Your task to perform on an android device: Clear the shopping cart on target.com. Search for macbook pro 15 inch on target.com, select the first entry, add it to the cart, then select checkout. Image 0: 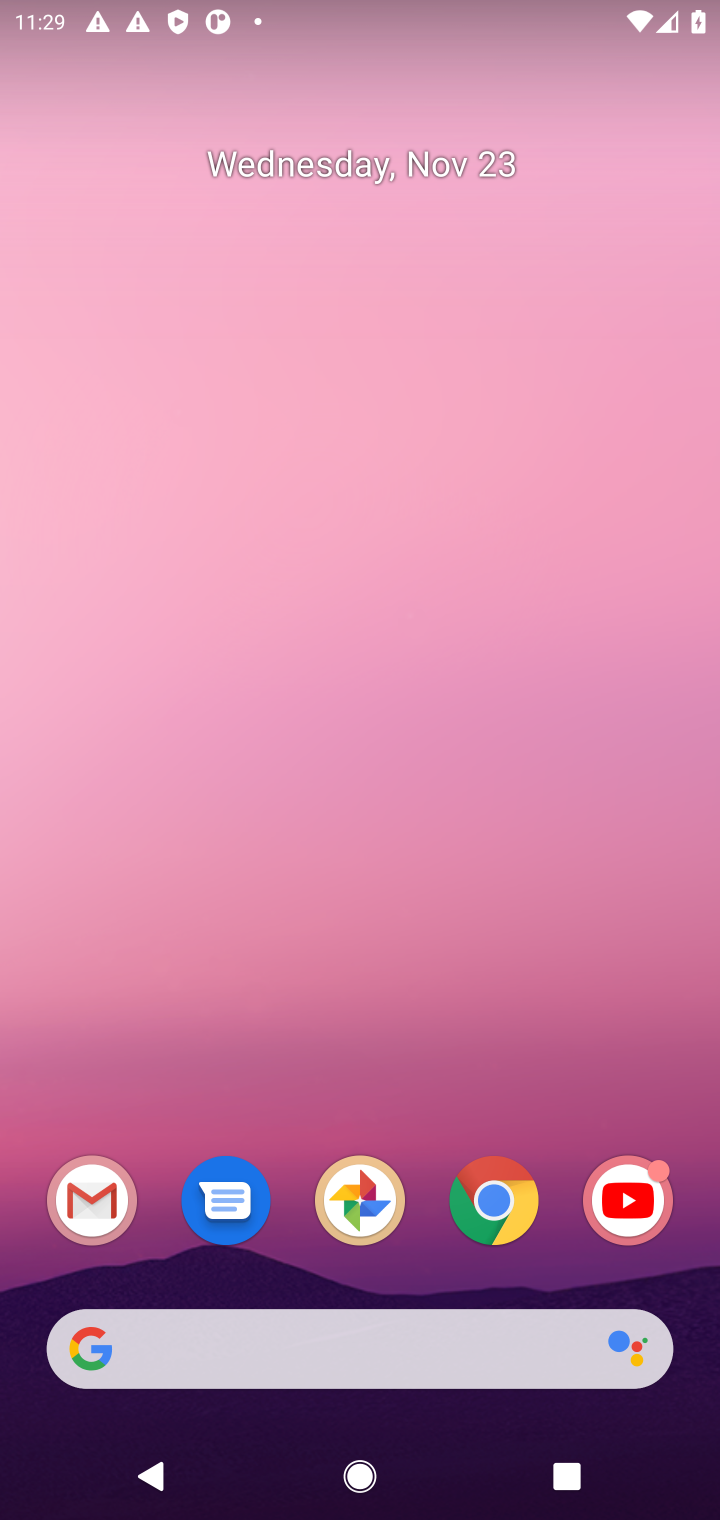
Step 0: click (486, 1337)
Your task to perform on an android device: Clear the shopping cart on target.com. Search for macbook pro 15 inch on target.com, select the first entry, add it to the cart, then select checkout. Image 1: 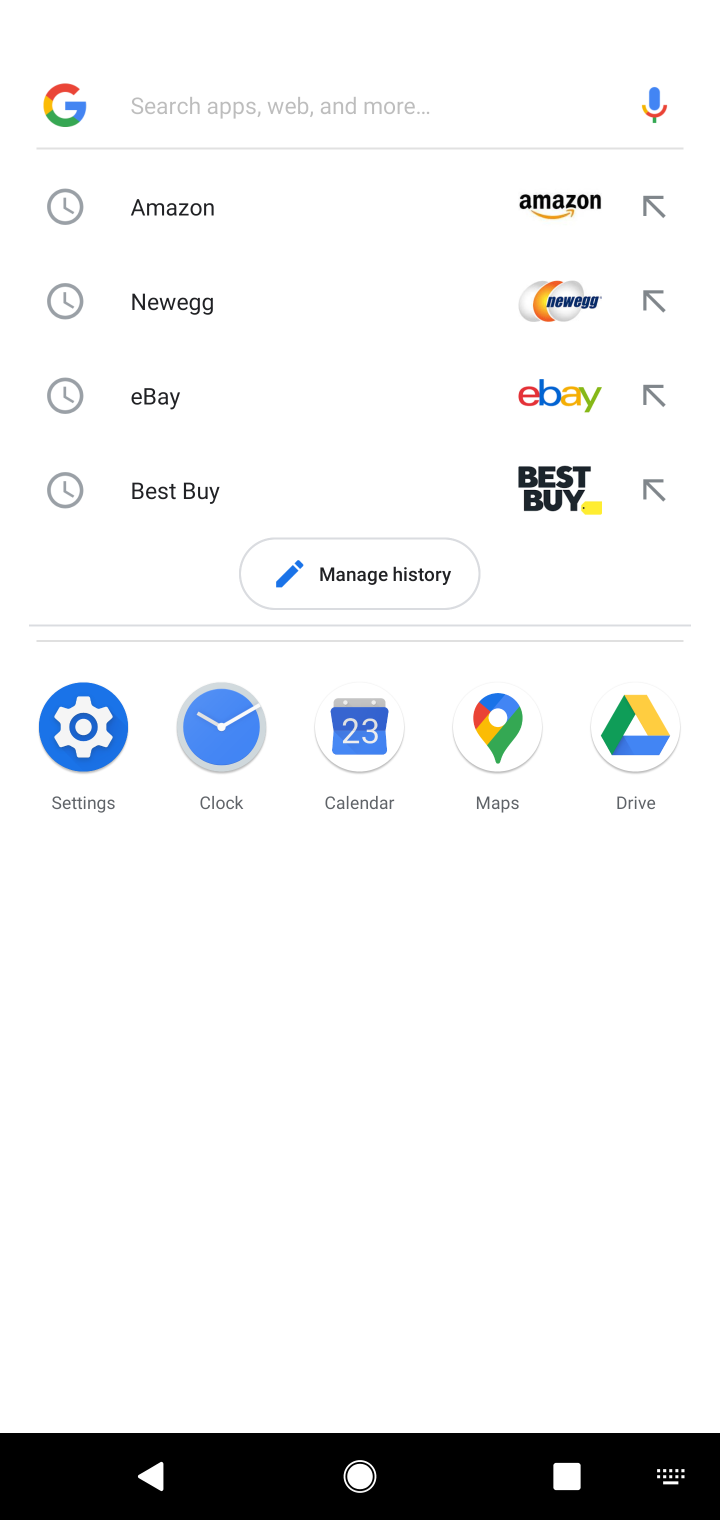
Step 1: type "target.com"
Your task to perform on an android device: Clear the shopping cart on target.com. Search for macbook pro 15 inch on target.com, select the first entry, add it to the cart, then select checkout. Image 2: 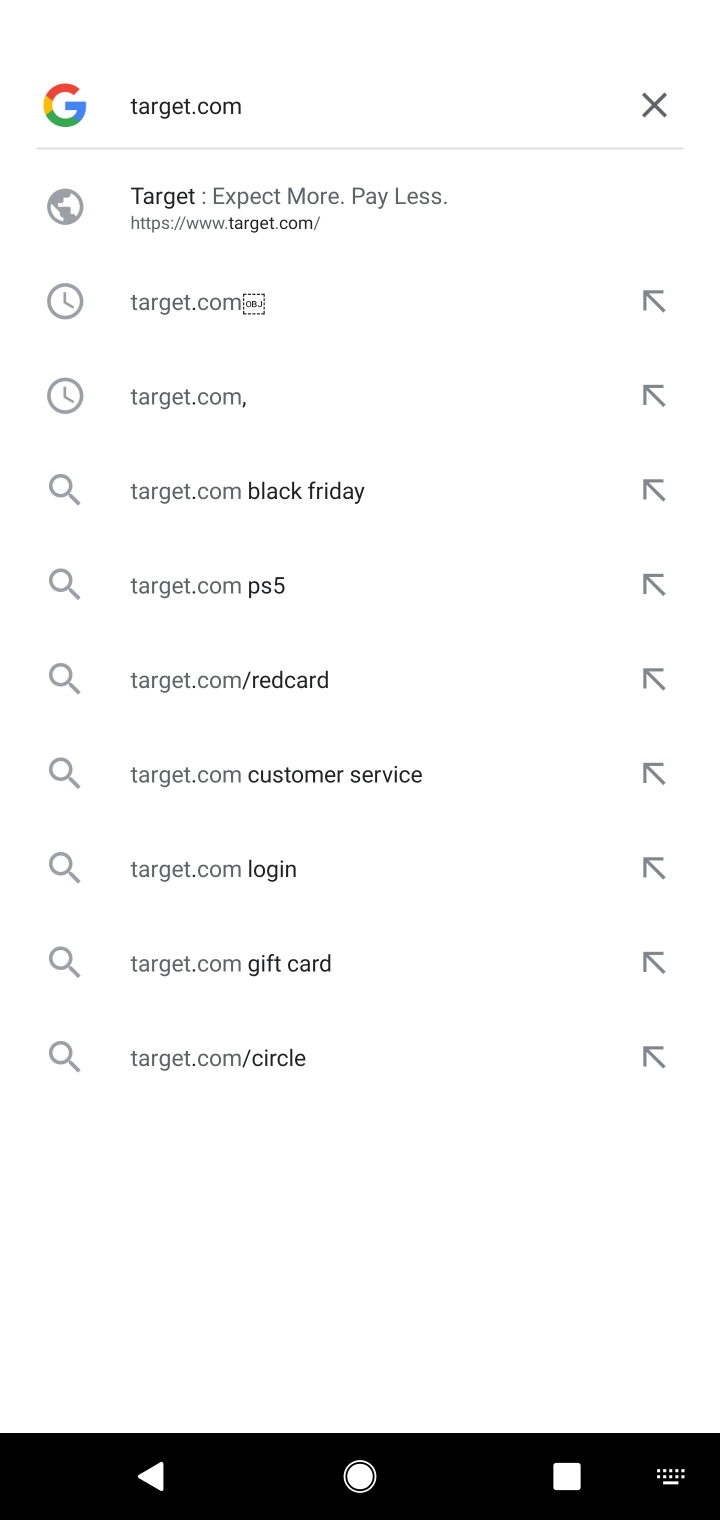
Step 2: click (535, 217)
Your task to perform on an android device: Clear the shopping cart on target.com. Search for macbook pro 15 inch on target.com, select the first entry, add it to the cart, then select checkout. Image 3: 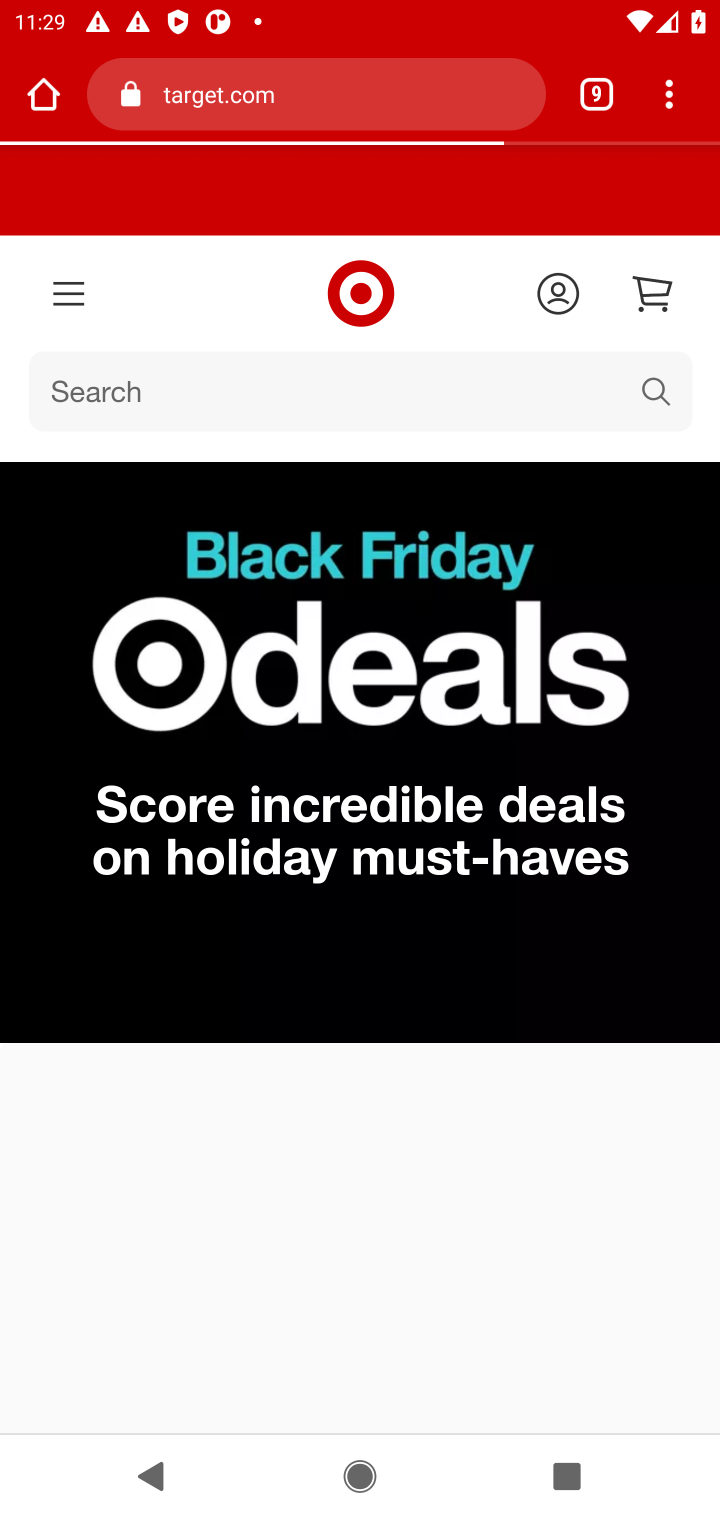
Step 3: click (433, 376)
Your task to perform on an android device: Clear the shopping cart on target.com. Search for macbook pro 15 inch on target.com, select the first entry, add it to the cart, then select checkout. Image 4: 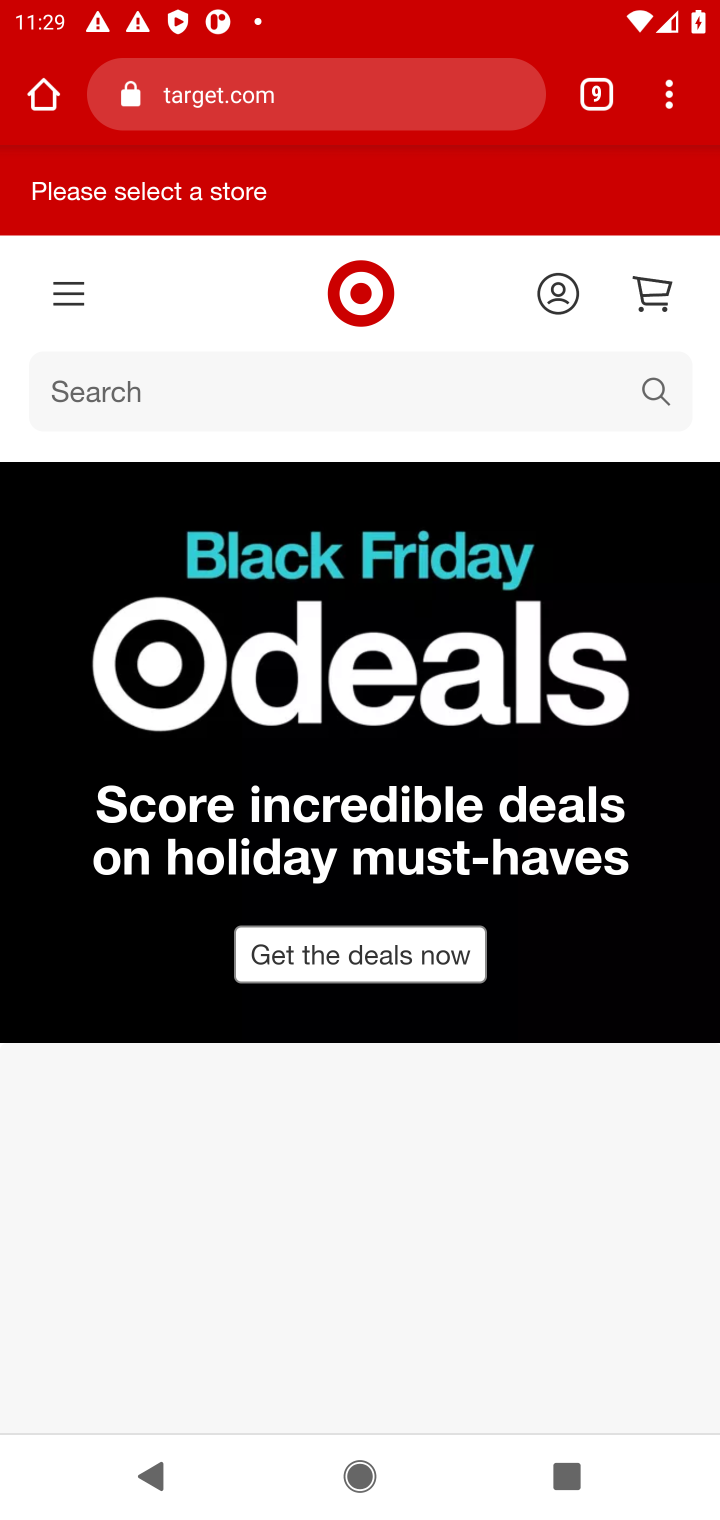
Step 4: type "macbook pro 15\"
Your task to perform on an android device: Clear the shopping cart on target.com. Search for macbook pro 15 inch on target.com, select the first entry, add it to the cart, then select checkout. Image 5: 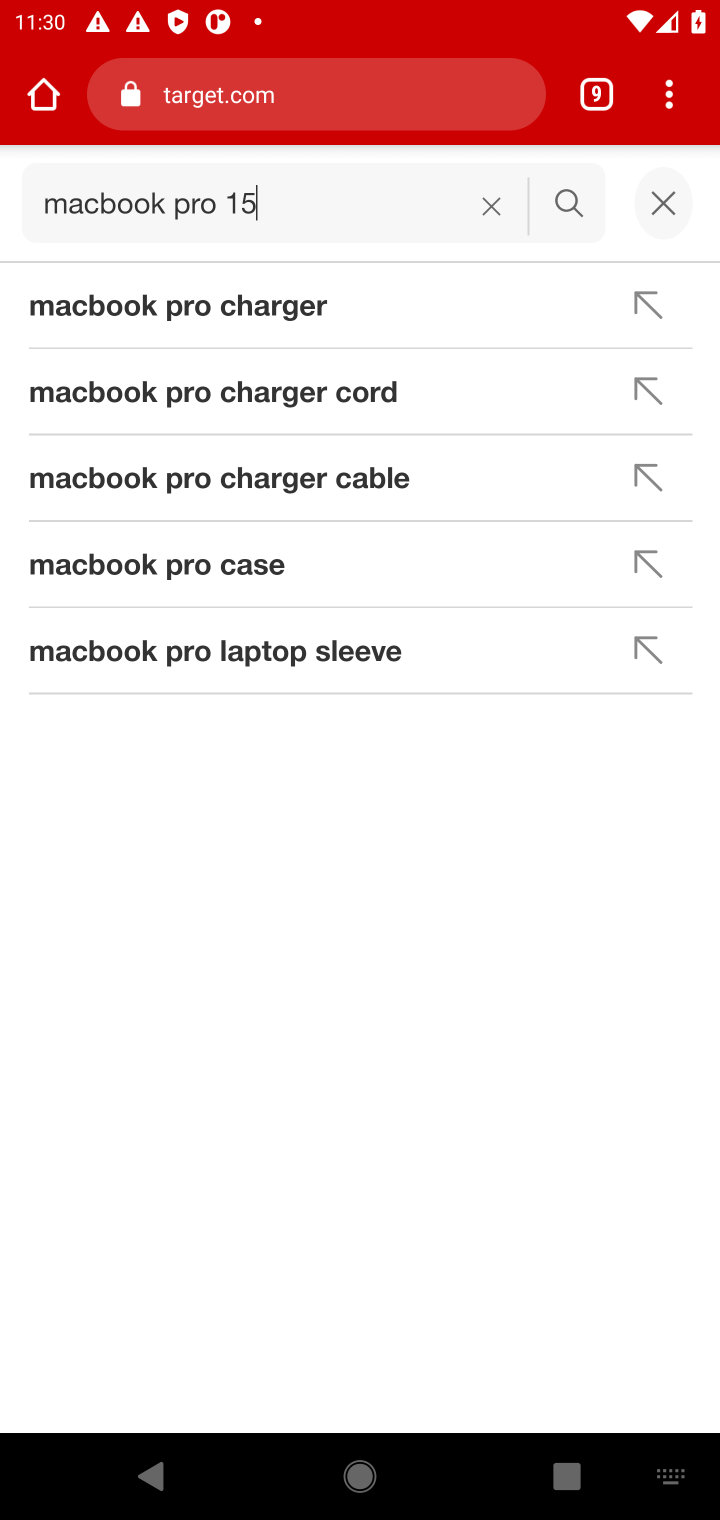
Step 5: click (279, 572)
Your task to perform on an android device: Clear the shopping cart on target.com. Search for macbook pro 15 inch on target.com, select the first entry, add it to the cart, then select checkout. Image 6: 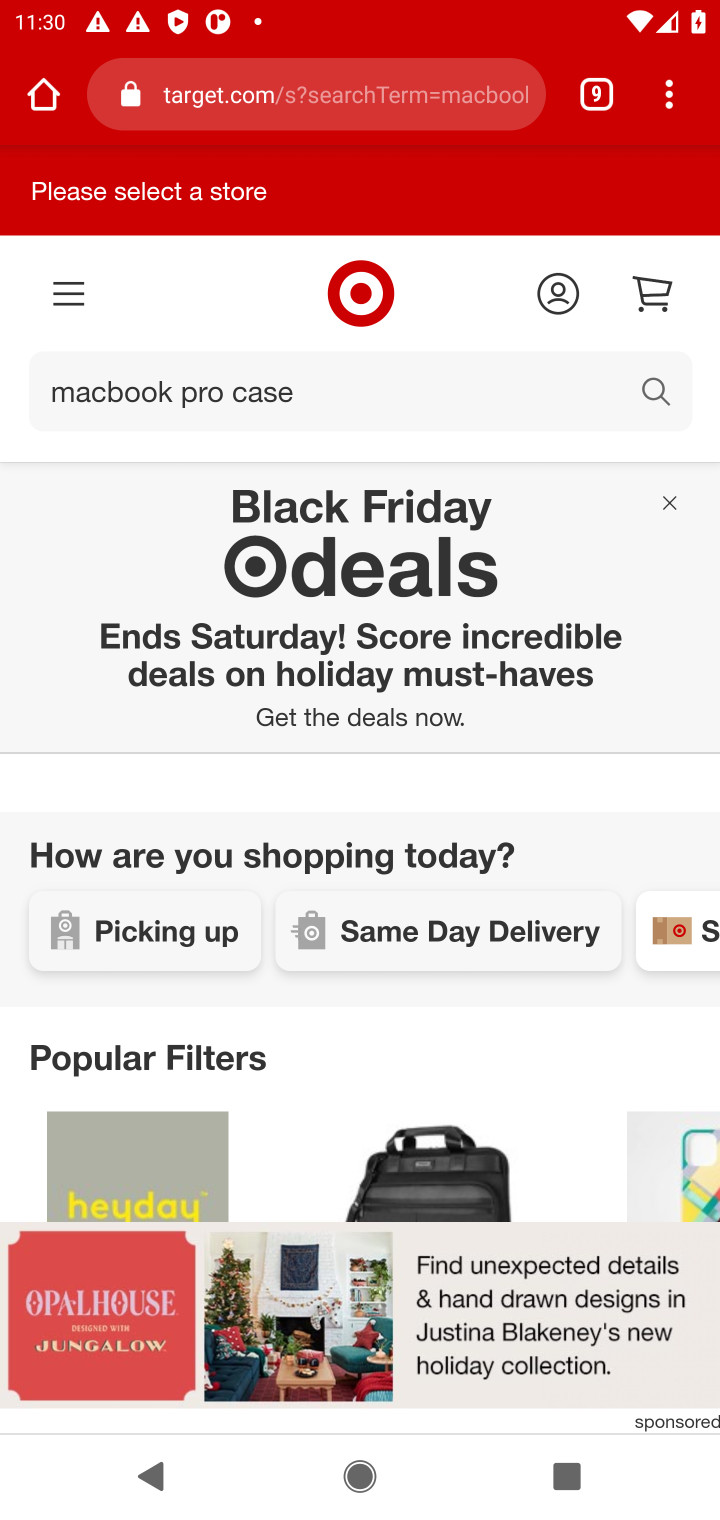
Step 6: task complete